Your task to perform on an android device: Toggle the flashlight Image 0: 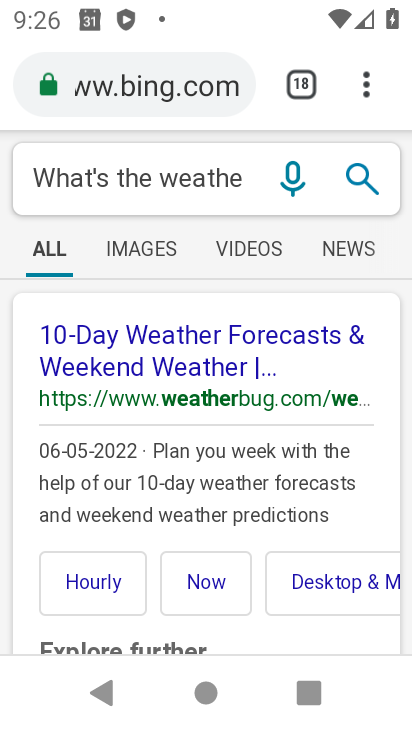
Step 0: press home button
Your task to perform on an android device: Toggle the flashlight Image 1: 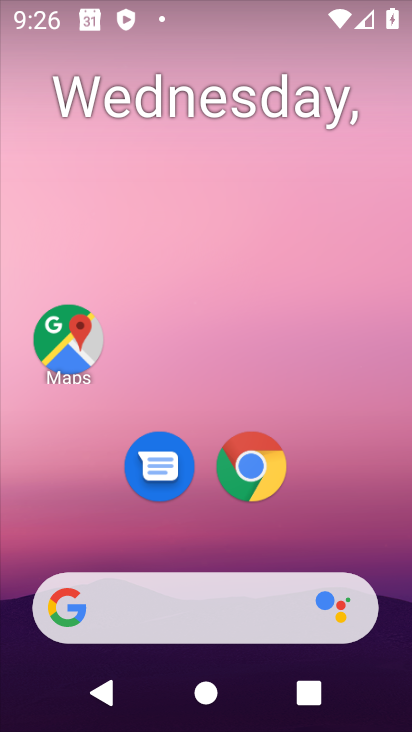
Step 1: drag from (309, 473) to (332, 235)
Your task to perform on an android device: Toggle the flashlight Image 2: 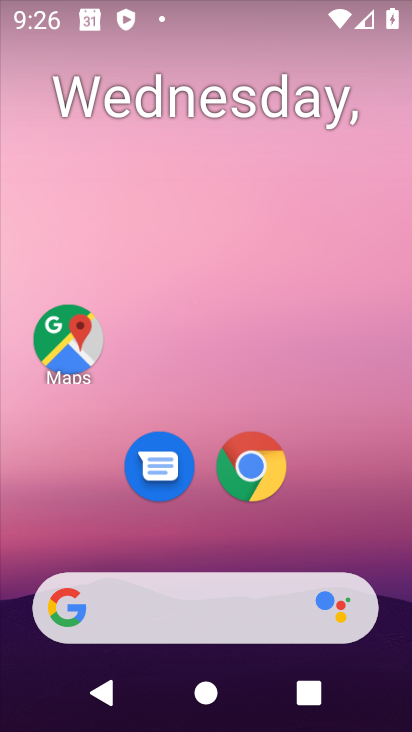
Step 2: drag from (344, 458) to (340, 177)
Your task to perform on an android device: Toggle the flashlight Image 3: 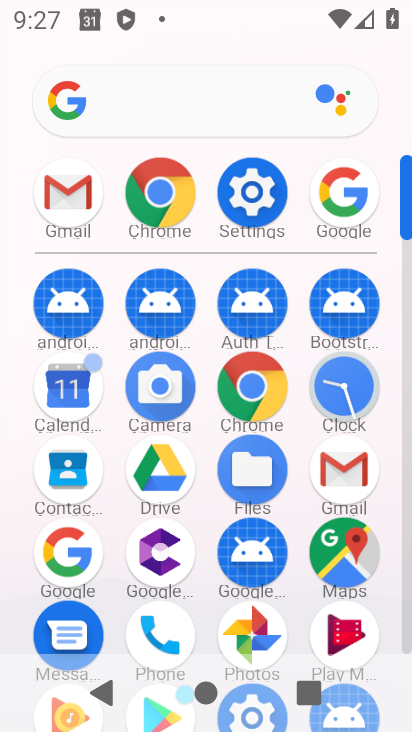
Step 3: click (232, 192)
Your task to perform on an android device: Toggle the flashlight Image 4: 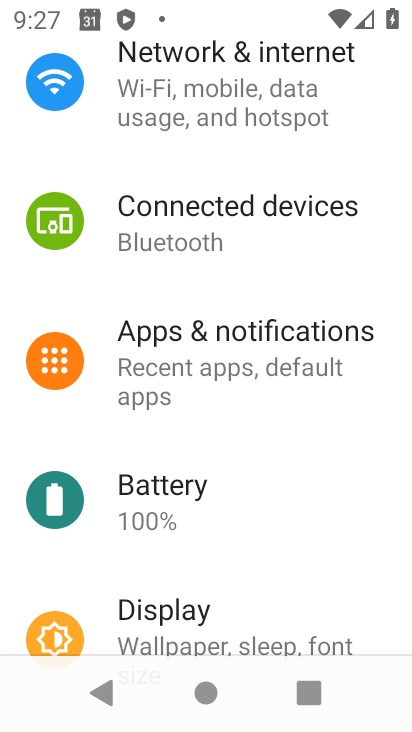
Step 4: task complete